Your task to perform on an android device: Open Google Maps Image 0: 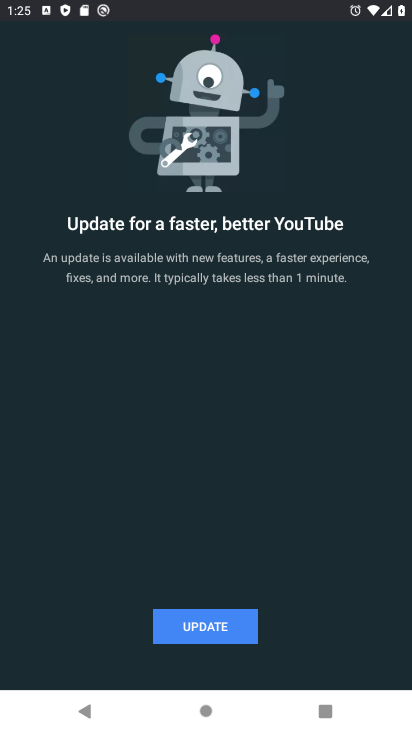
Step 0: press home button
Your task to perform on an android device: Open Google Maps Image 1: 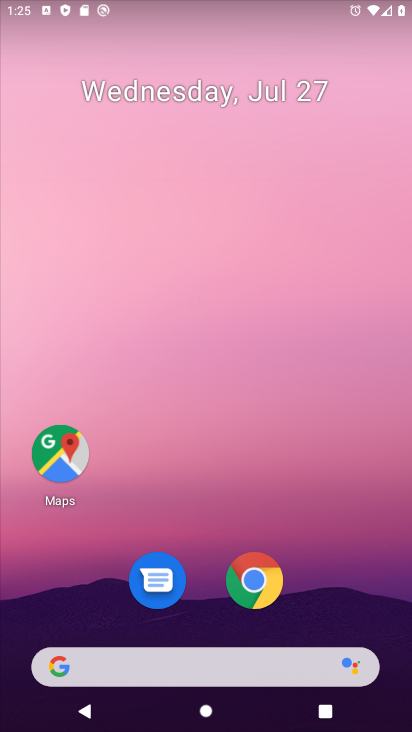
Step 1: click (49, 456)
Your task to perform on an android device: Open Google Maps Image 2: 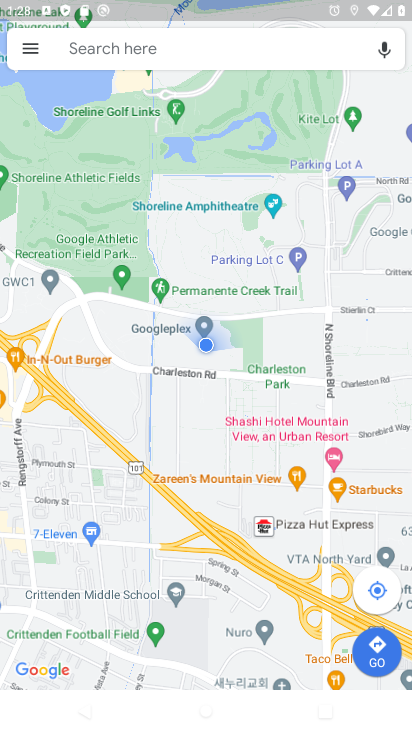
Step 2: task complete